Your task to perform on an android device: read, delete, or share a saved page in the chrome app Image 0: 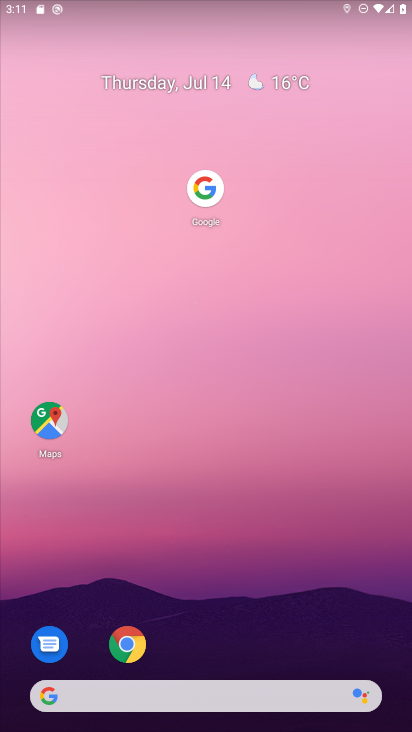
Step 0: click (128, 649)
Your task to perform on an android device: read, delete, or share a saved page in the chrome app Image 1: 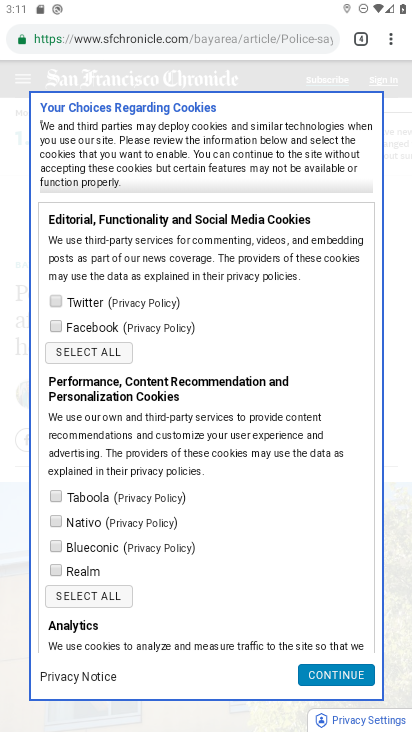
Step 1: click (390, 40)
Your task to perform on an android device: read, delete, or share a saved page in the chrome app Image 2: 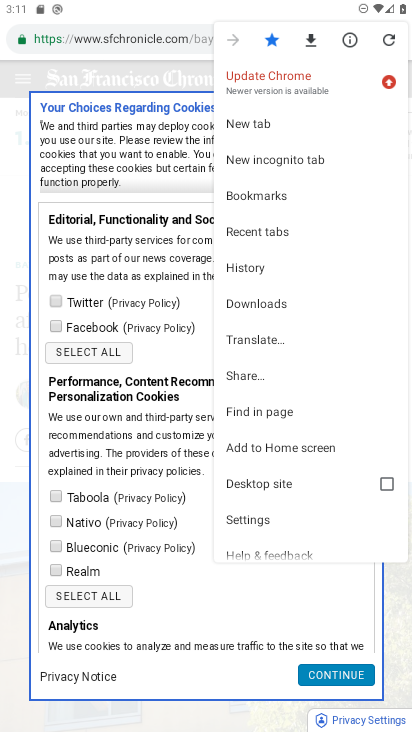
Step 2: click (279, 300)
Your task to perform on an android device: read, delete, or share a saved page in the chrome app Image 3: 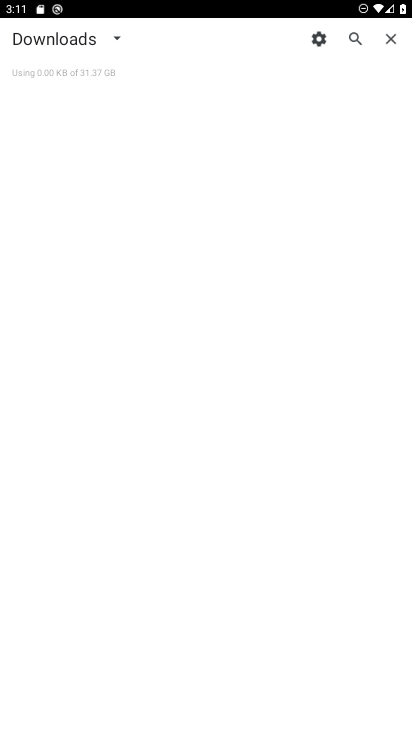
Step 3: click (114, 48)
Your task to perform on an android device: read, delete, or share a saved page in the chrome app Image 4: 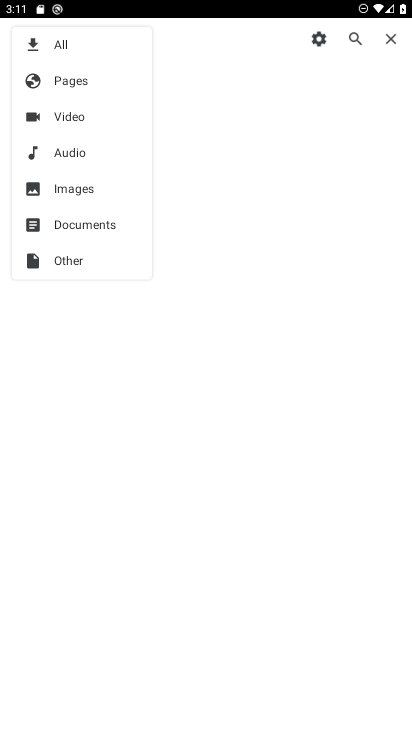
Step 4: click (86, 79)
Your task to perform on an android device: read, delete, or share a saved page in the chrome app Image 5: 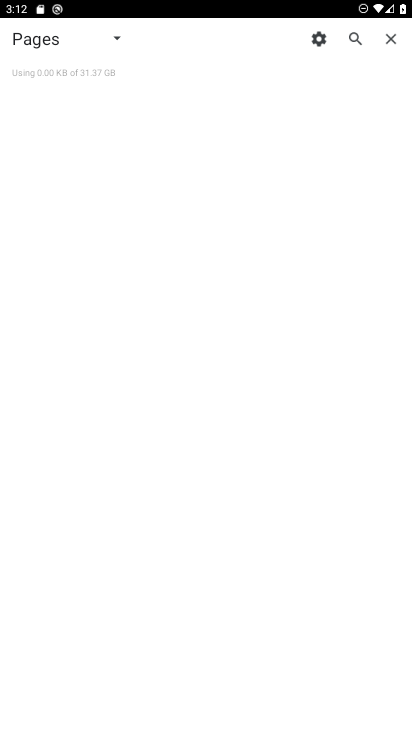
Step 5: task complete